Your task to perform on an android device: toggle pop-ups in chrome Image 0: 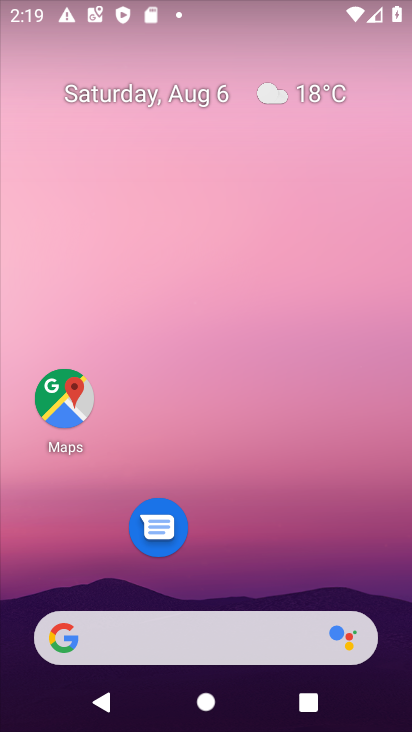
Step 0: drag from (223, 461) to (203, 105)
Your task to perform on an android device: toggle pop-ups in chrome Image 1: 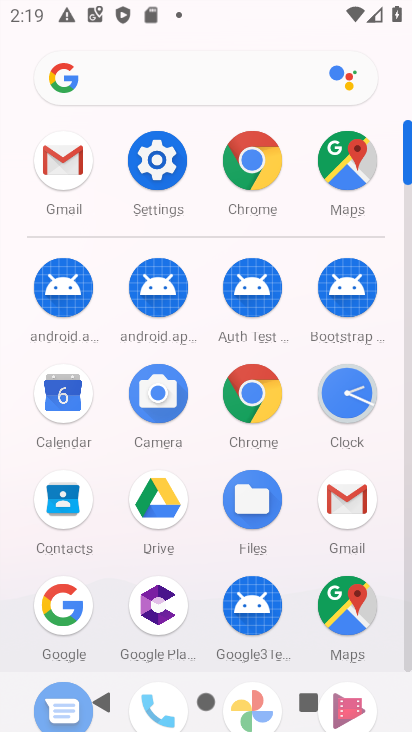
Step 1: click (254, 412)
Your task to perform on an android device: toggle pop-ups in chrome Image 2: 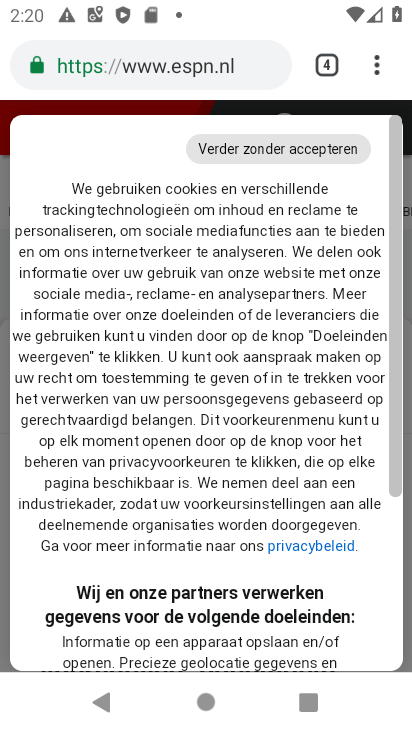
Step 2: click (380, 68)
Your task to perform on an android device: toggle pop-ups in chrome Image 3: 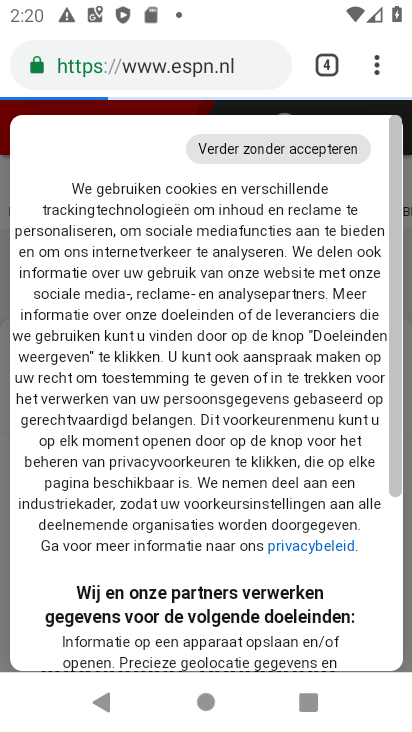
Step 3: click (380, 68)
Your task to perform on an android device: toggle pop-ups in chrome Image 4: 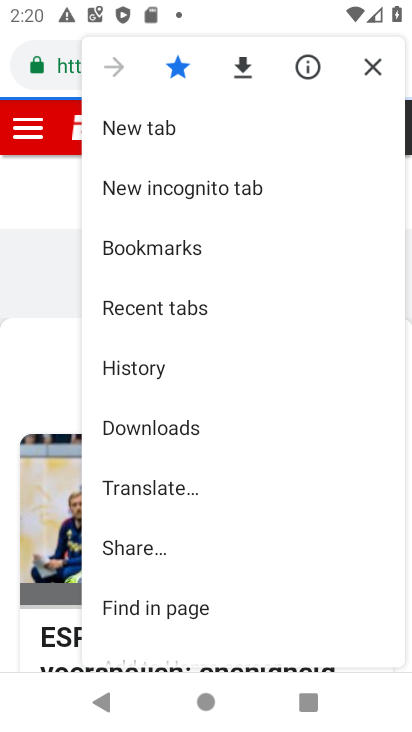
Step 4: drag from (169, 575) to (179, 274)
Your task to perform on an android device: toggle pop-ups in chrome Image 5: 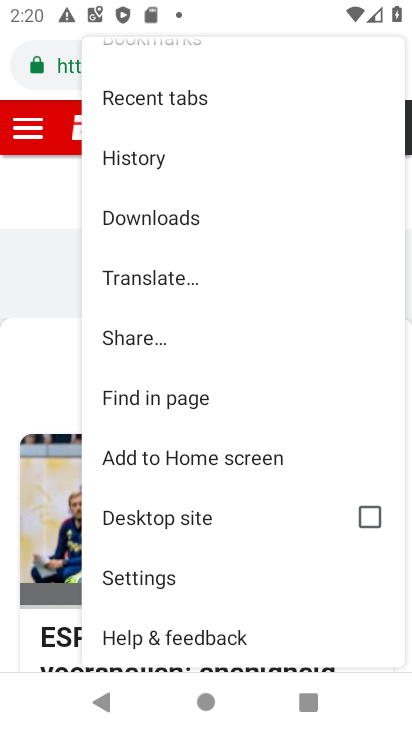
Step 5: click (191, 576)
Your task to perform on an android device: toggle pop-ups in chrome Image 6: 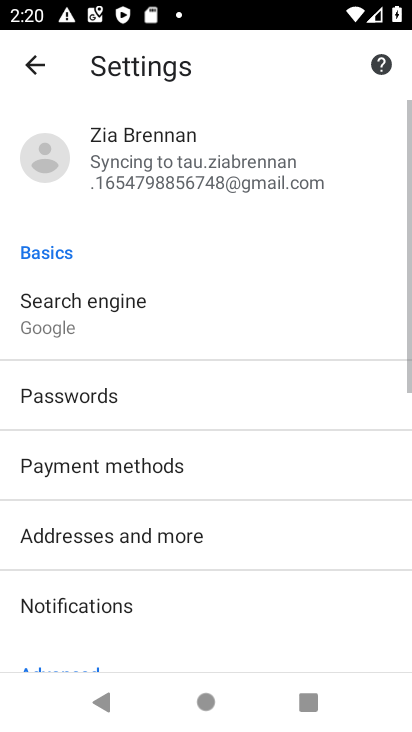
Step 6: drag from (191, 506) to (224, 232)
Your task to perform on an android device: toggle pop-ups in chrome Image 7: 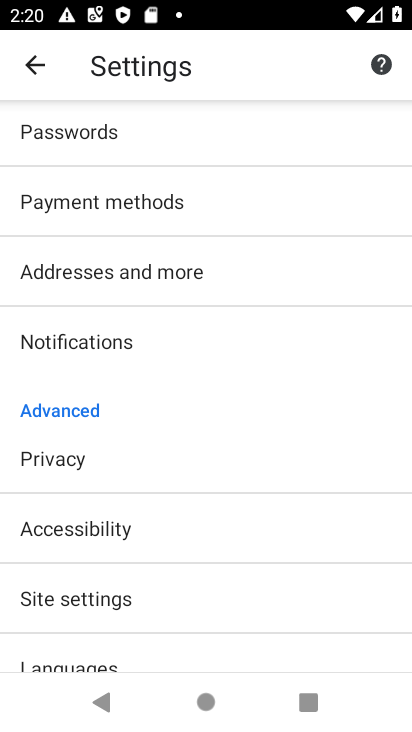
Step 7: drag from (151, 614) to (126, 334)
Your task to perform on an android device: toggle pop-ups in chrome Image 8: 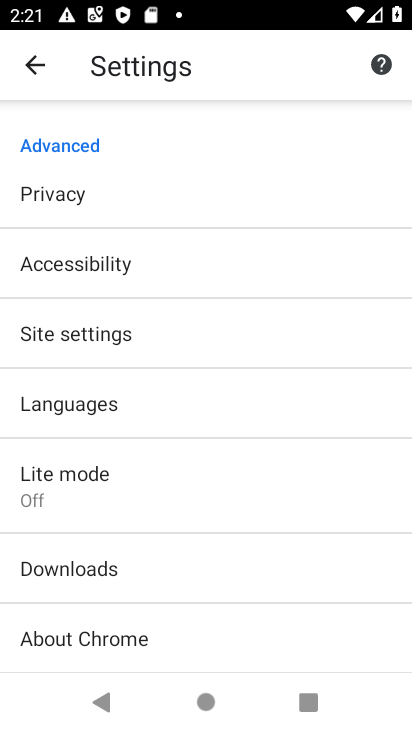
Step 8: click (131, 348)
Your task to perform on an android device: toggle pop-ups in chrome Image 9: 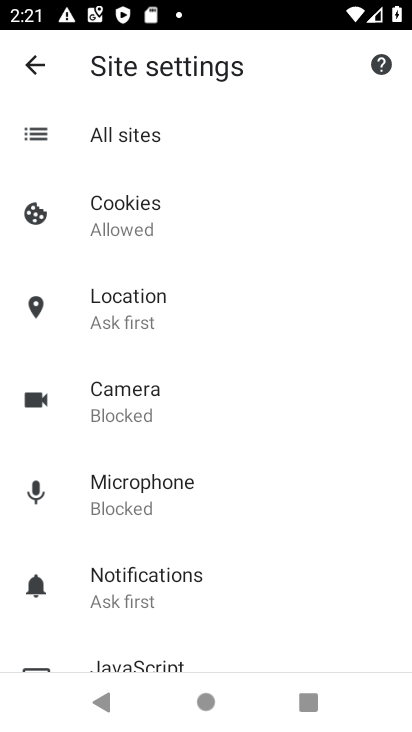
Step 9: drag from (148, 591) to (207, 196)
Your task to perform on an android device: toggle pop-ups in chrome Image 10: 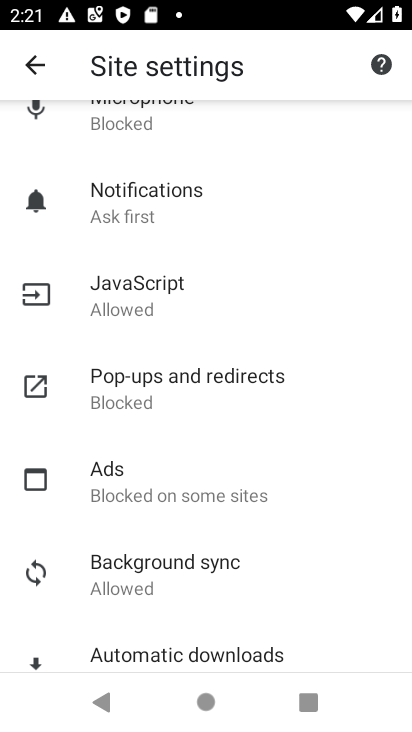
Step 10: click (185, 397)
Your task to perform on an android device: toggle pop-ups in chrome Image 11: 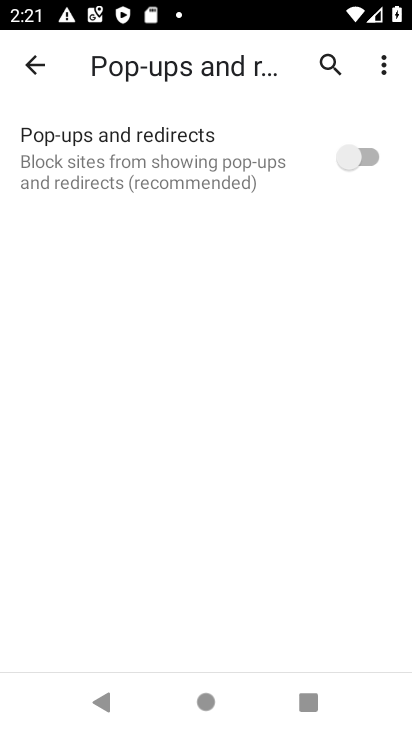
Step 11: click (345, 157)
Your task to perform on an android device: toggle pop-ups in chrome Image 12: 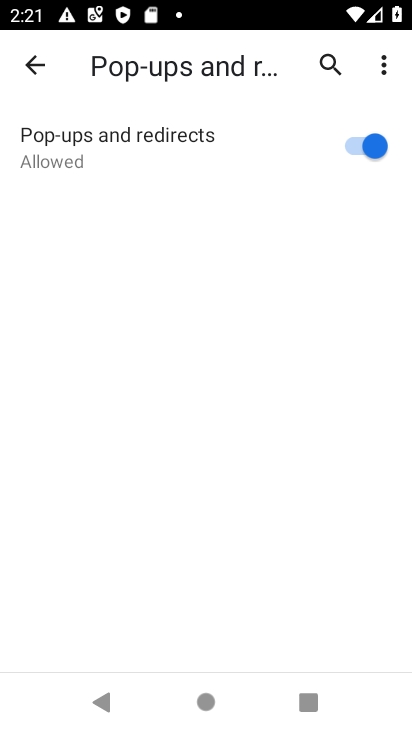
Step 12: task complete